Your task to perform on an android device: Show the shopping cart on target. Image 0: 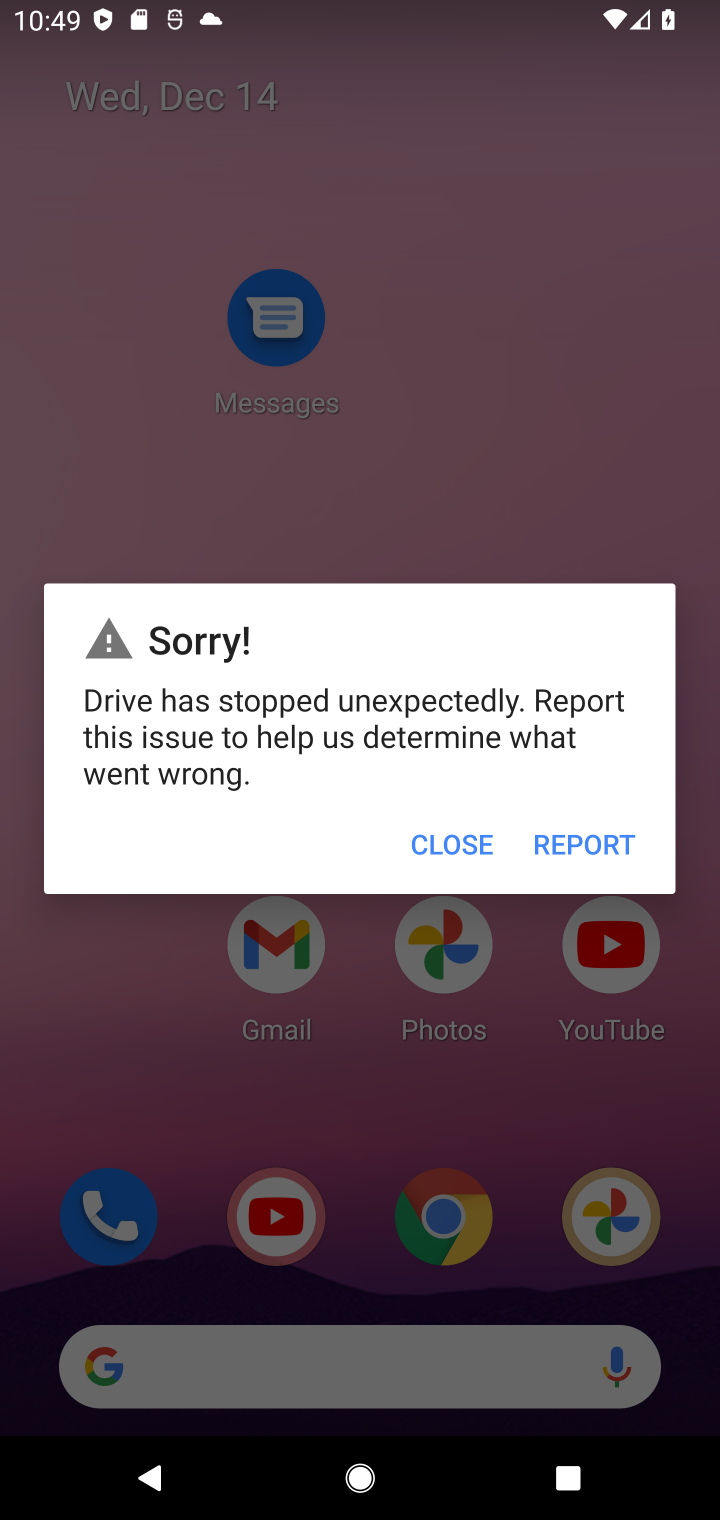
Step 0: click (467, 841)
Your task to perform on an android device: Show the shopping cart on target. Image 1: 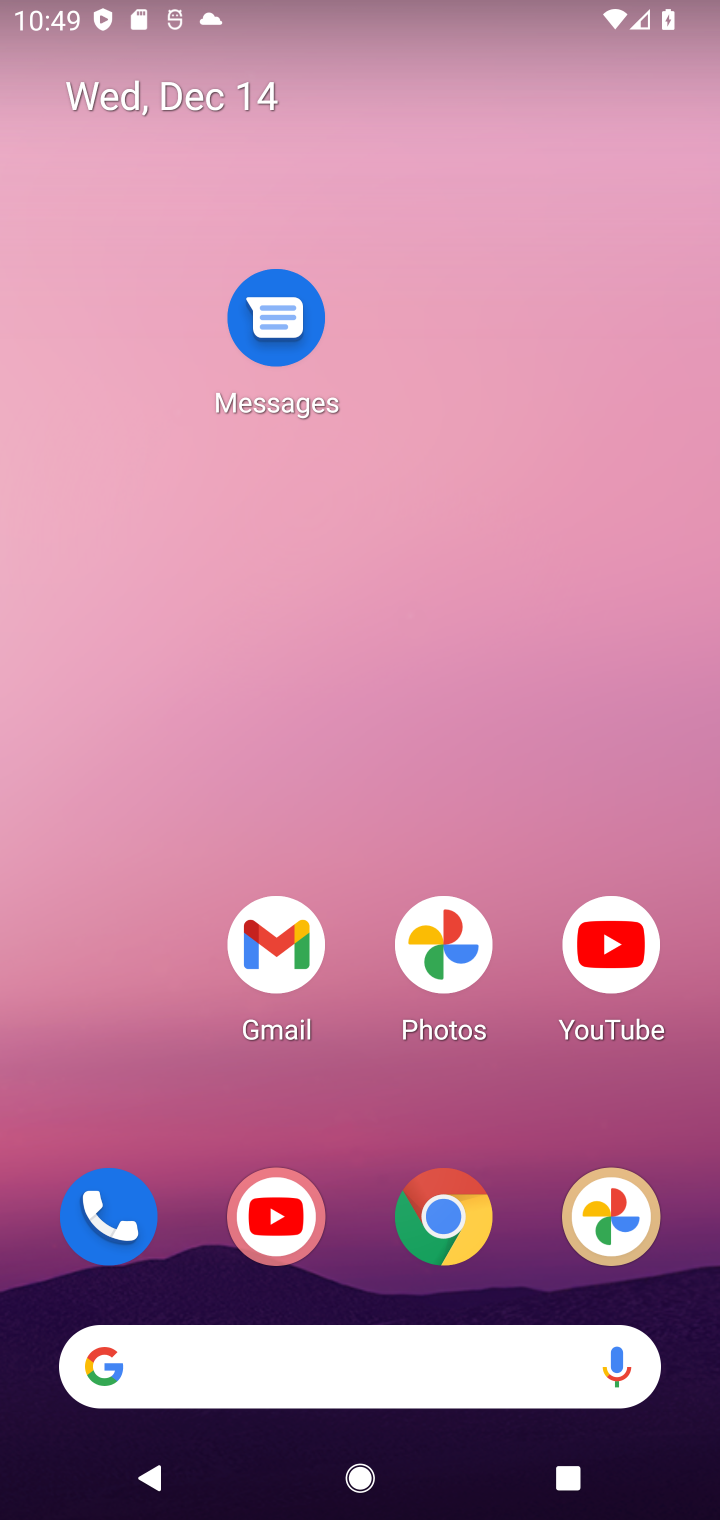
Step 1: drag from (217, 1346) to (309, 509)
Your task to perform on an android device: Show the shopping cart on target. Image 2: 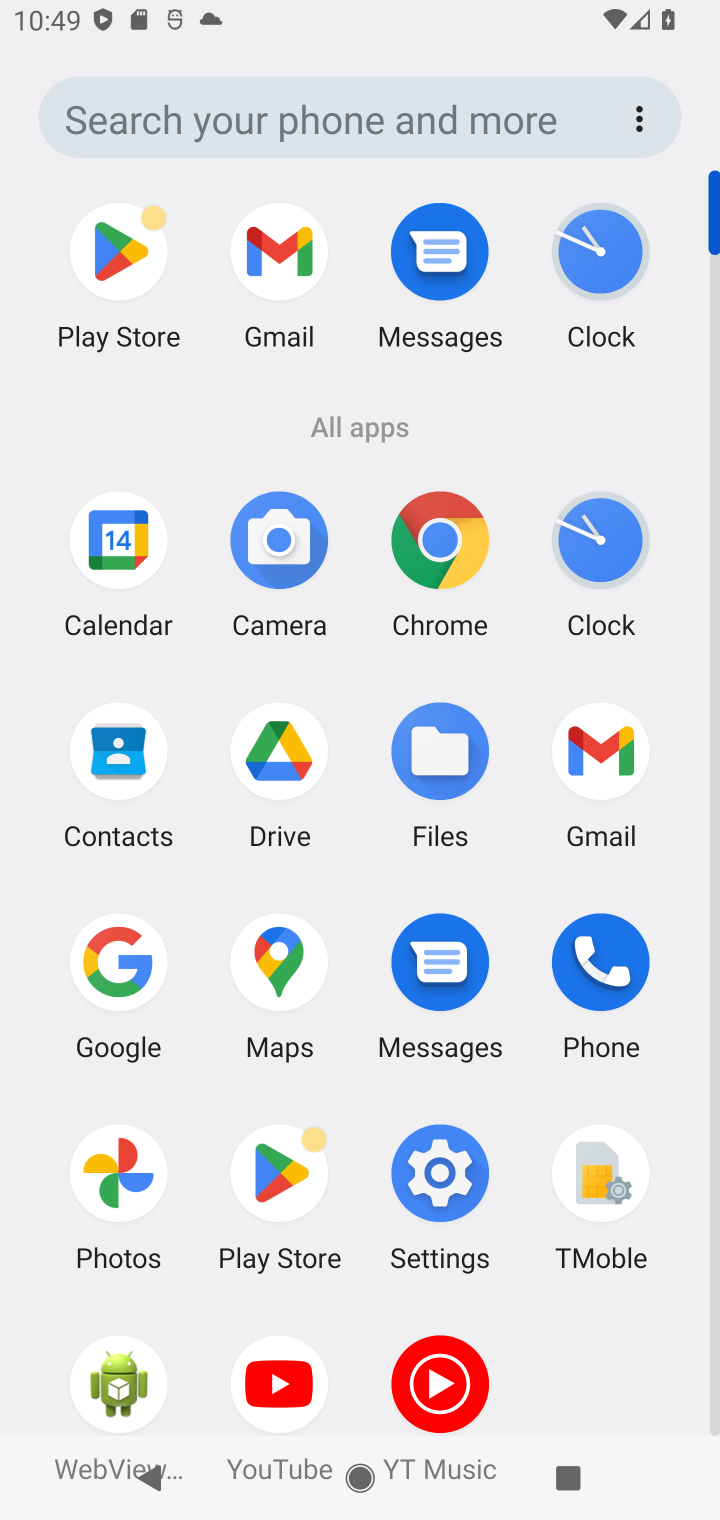
Step 2: click (108, 969)
Your task to perform on an android device: Show the shopping cart on target. Image 3: 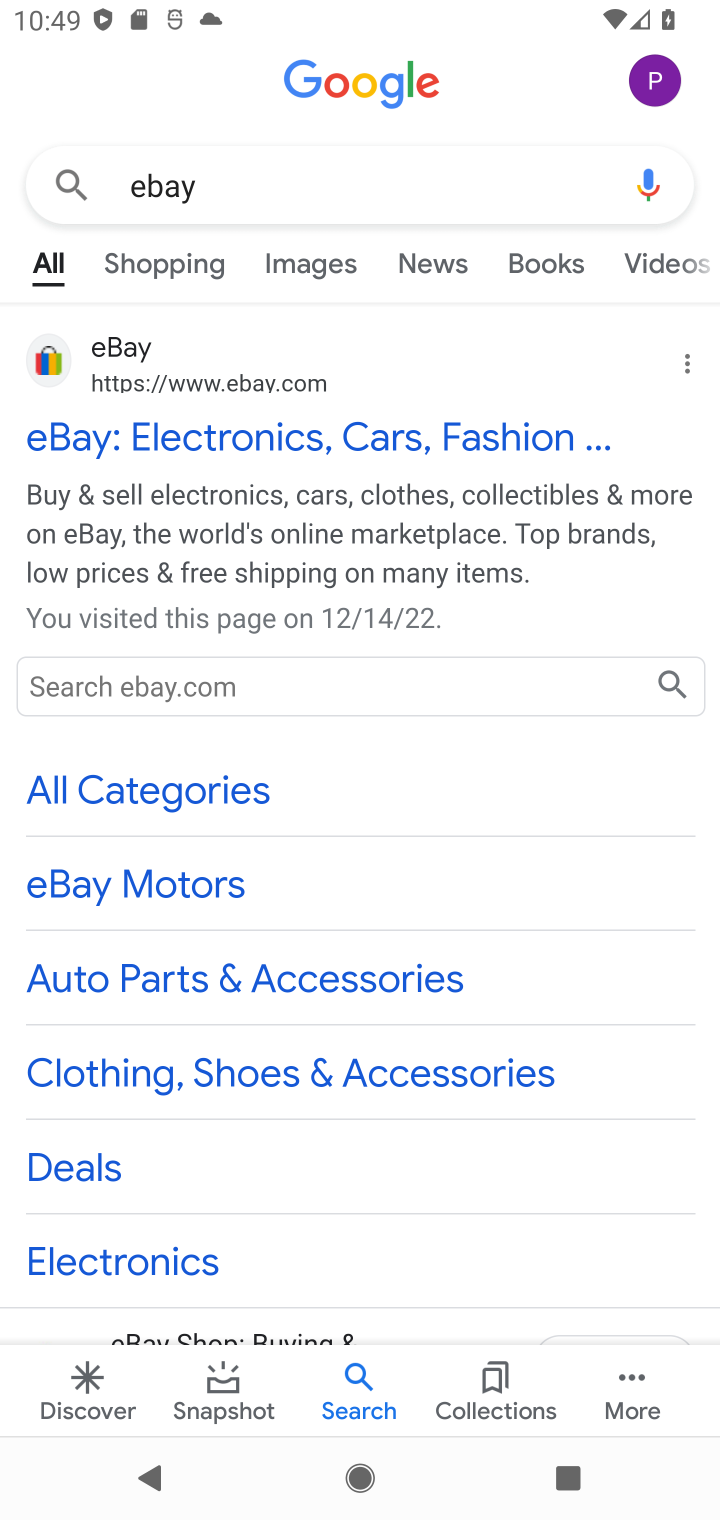
Step 3: click (145, 202)
Your task to perform on an android device: Show the shopping cart on target. Image 4: 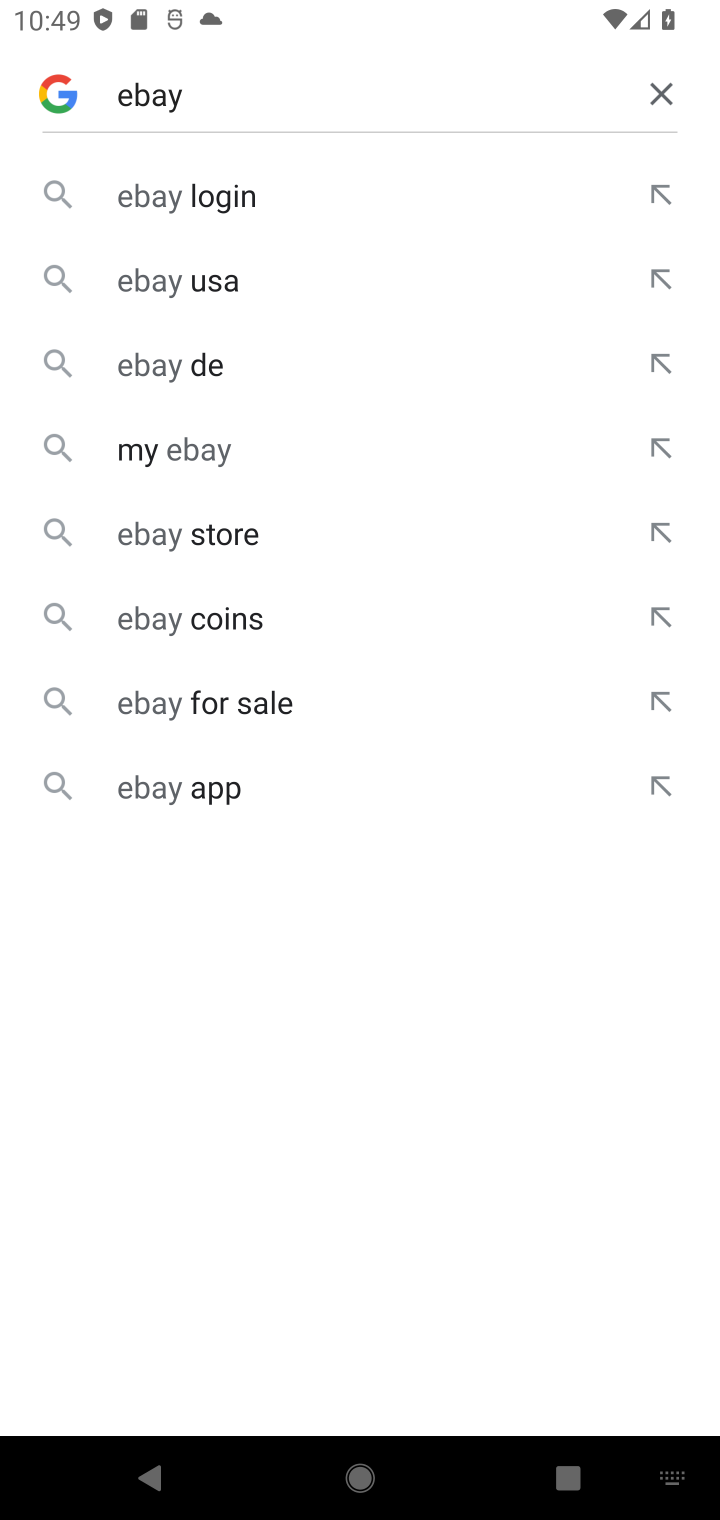
Step 4: click (659, 98)
Your task to perform on an android device: Show the shopping cart on target. Image 5: 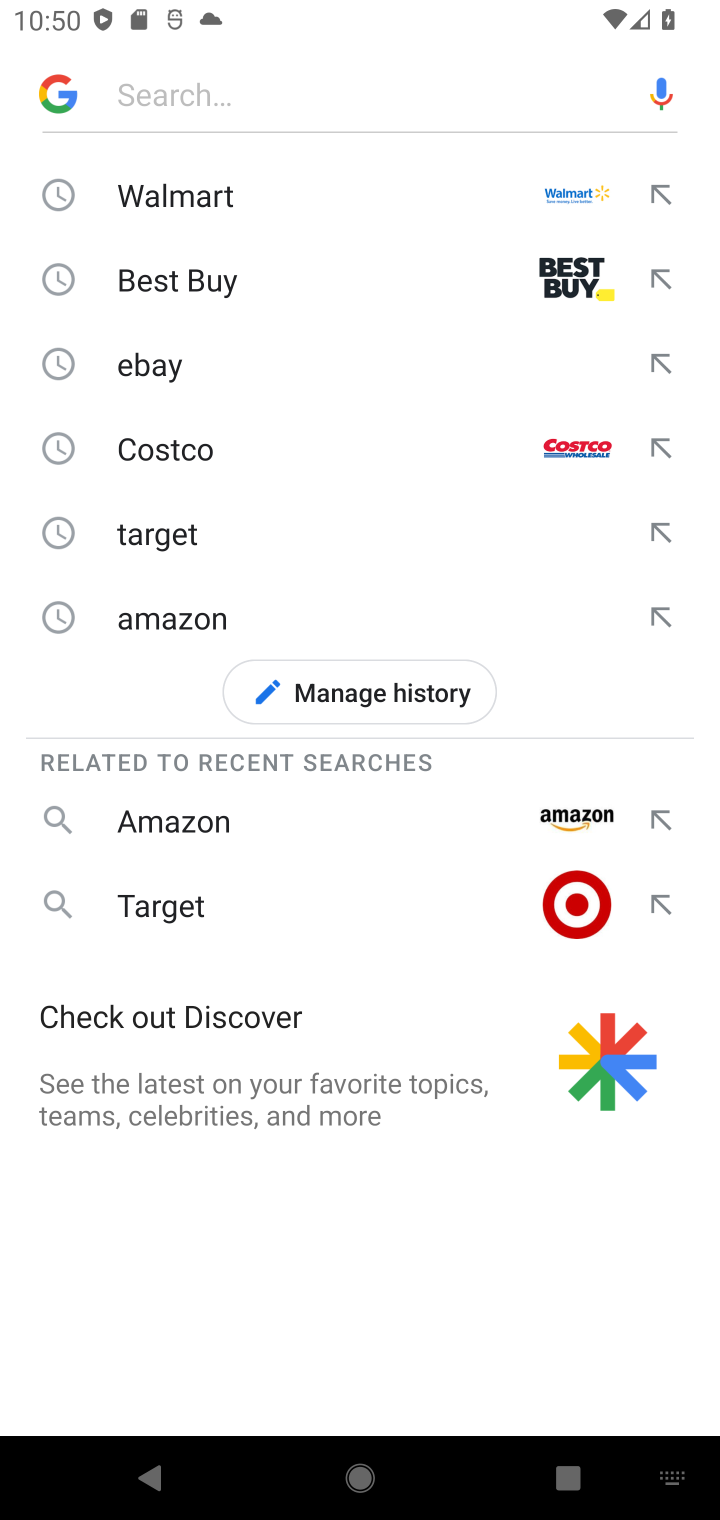
Step 5: click (142, 541)
Your task to perform on an android device: Show the shopping cart on target. Image 6: 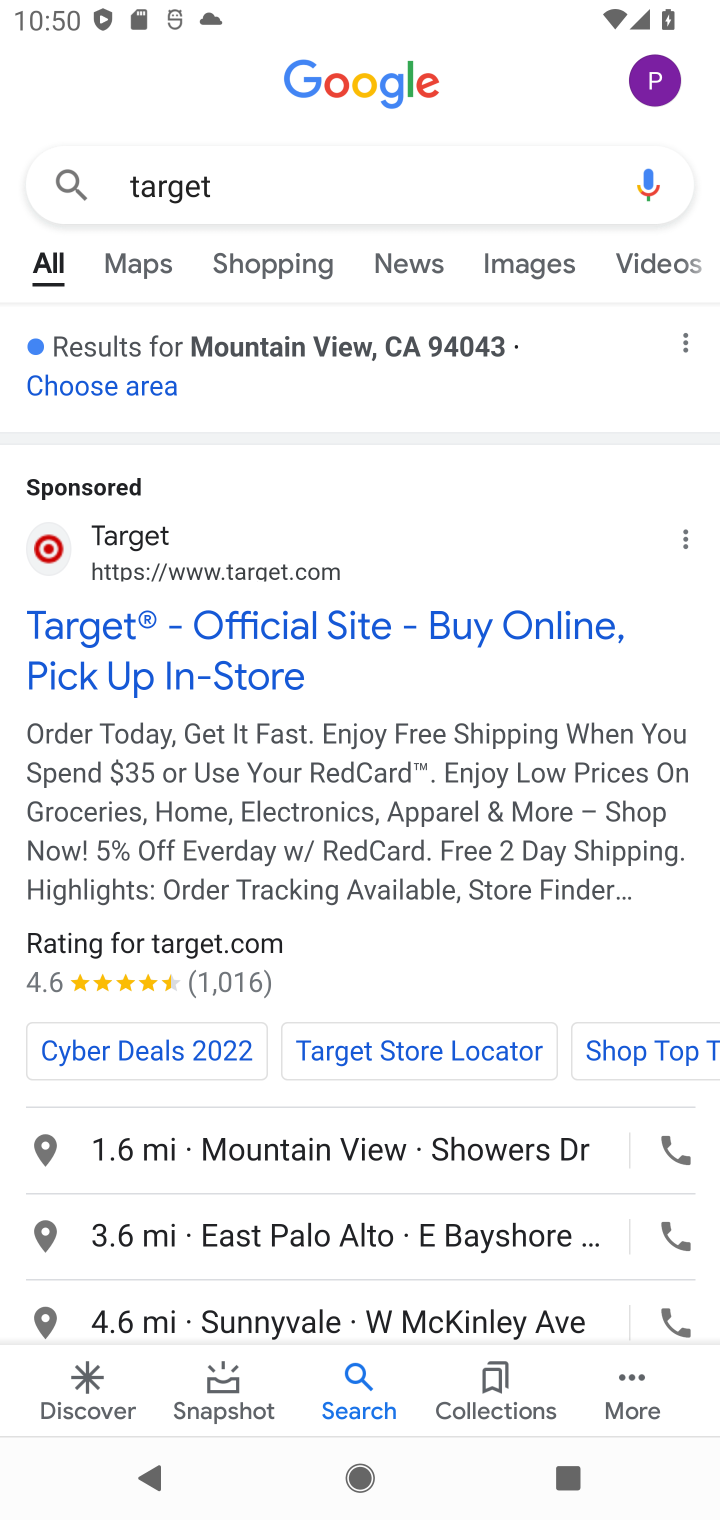
Step 6: click (142, 631)
Your task to perform on an android device: Show the shopping cart on target. Image 7: 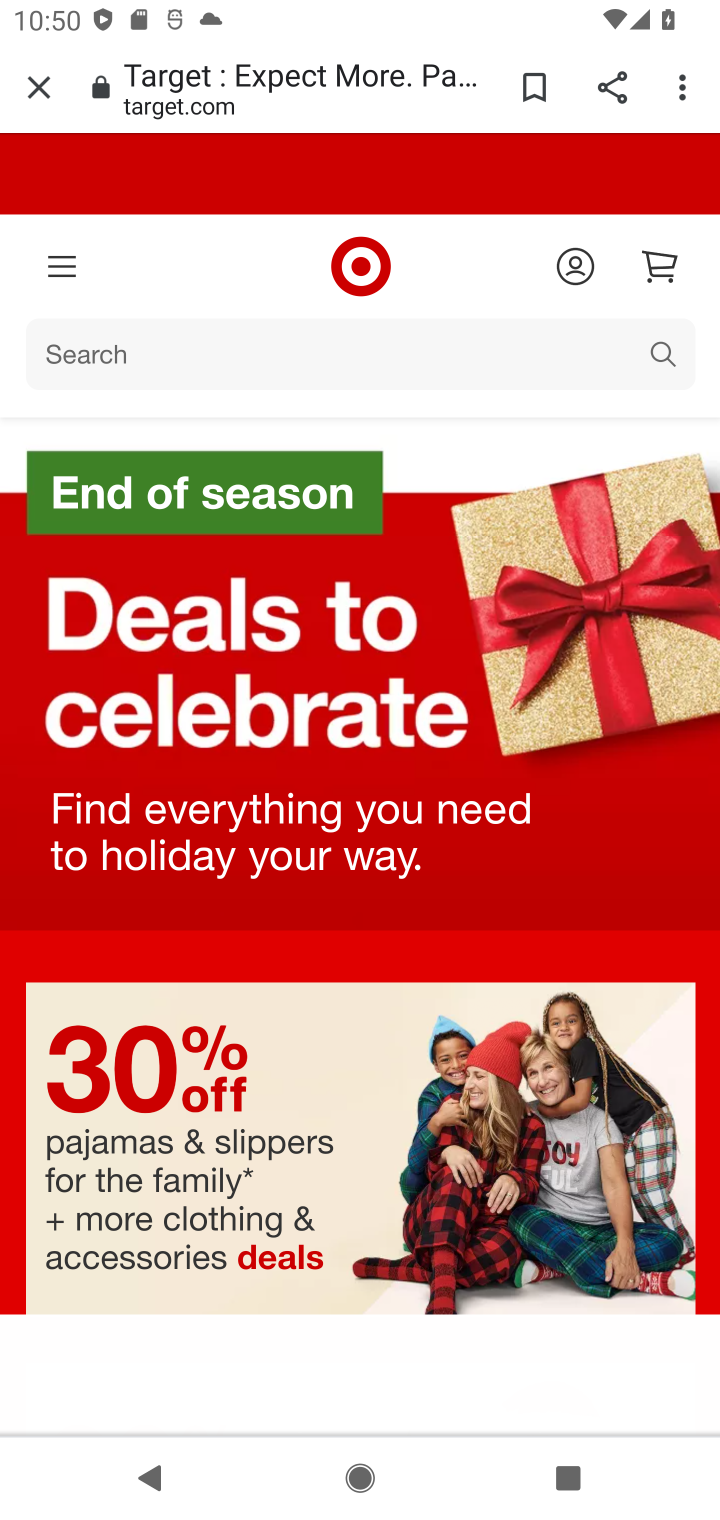
Step 7: click (666, 264)
Your task to perform on an android device: Show the shopping cart on target. Image 8: 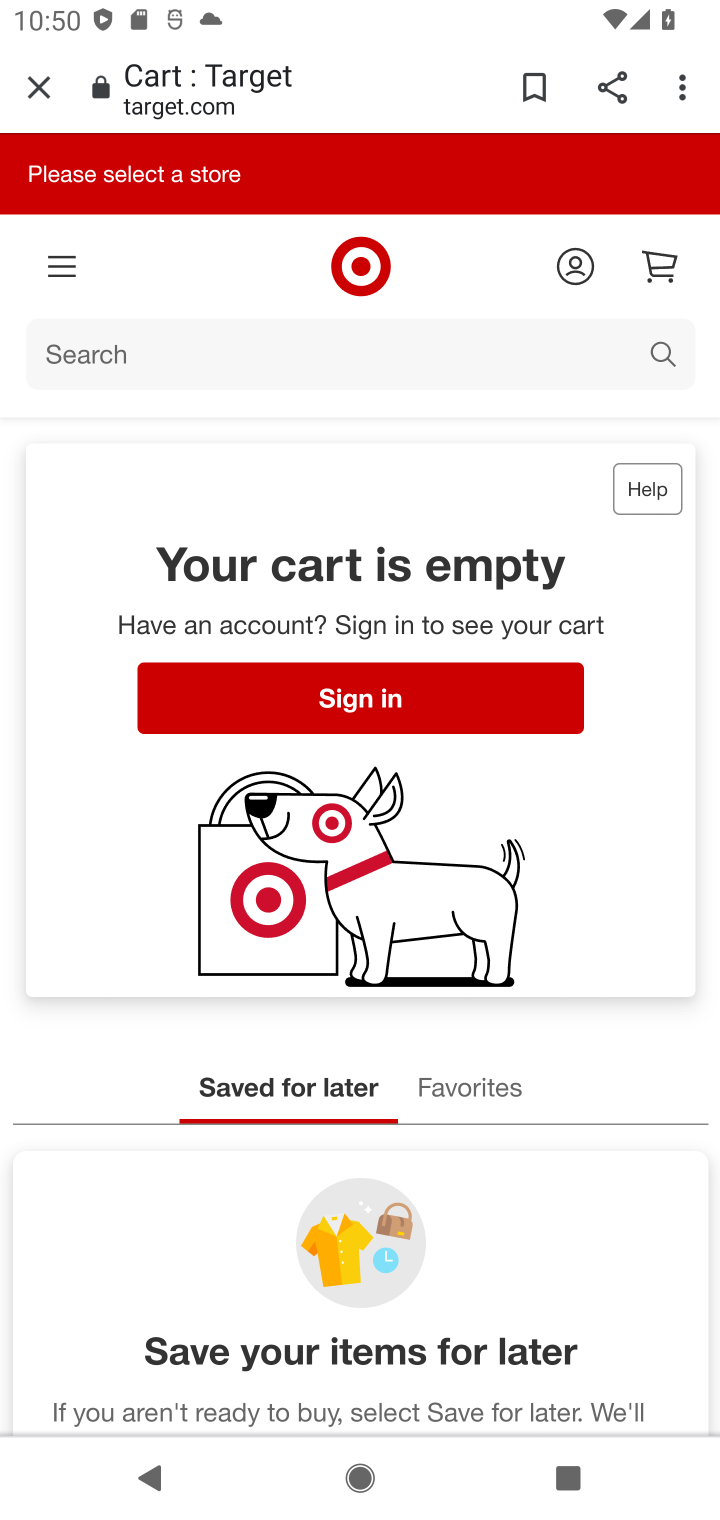
Step 8: task complete